Your task to perform on an android device: toggle wifi Image 0: 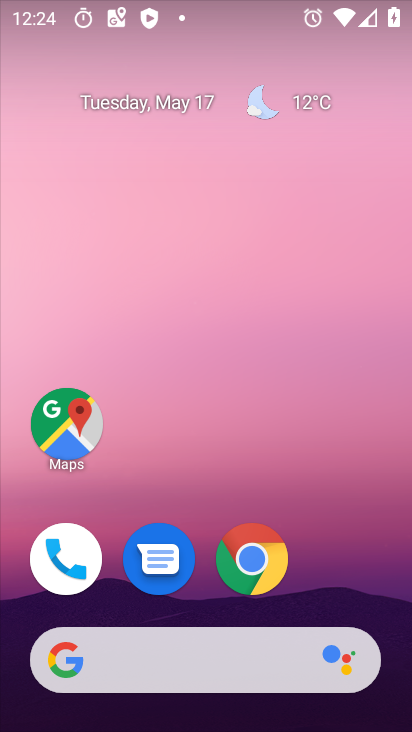
Step 0: drag from (347, 571) to (306, 133)
Your task to perform on an android device: toggle wifi Image 1: 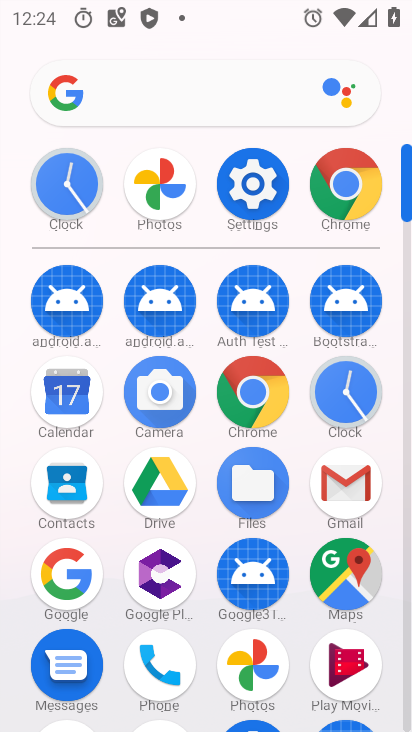
Step 1: click (245, 209)
Your task to perform on an android device: toggle wifi Image 2: 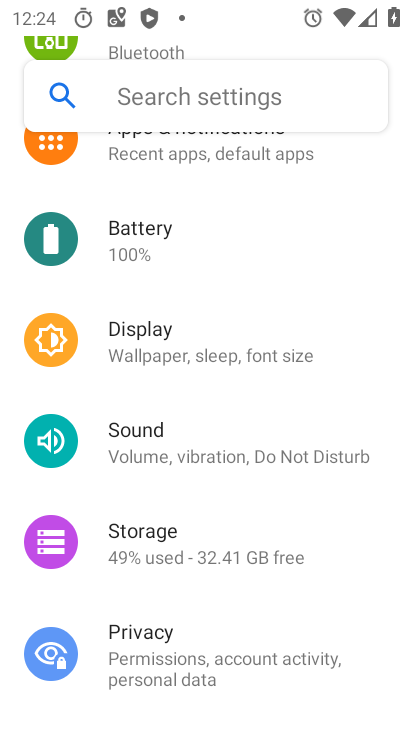
Step 2: drag from (230, 197) to (225, 696)
Your task to perform on an android device: toggle wifi Image 3: 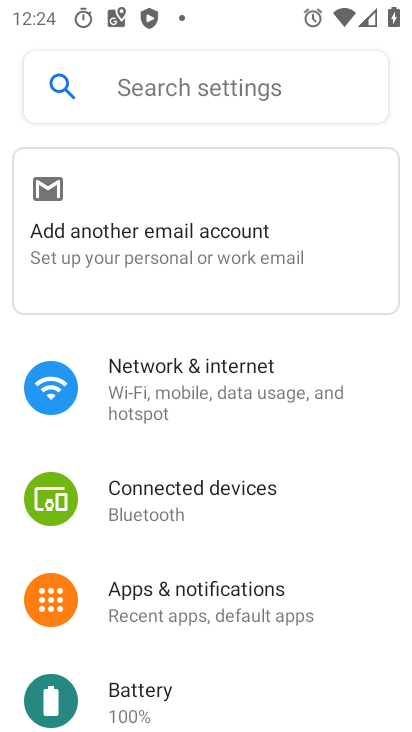
Step 3: click (189, 373)
Your task to perform on an android device: toggle wifi Image 4: 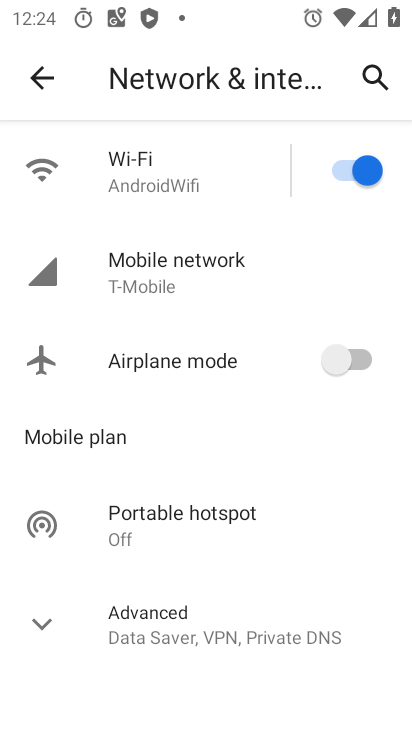
Step 4: click (375, 163)
Your task to perform on an android device: toggle wifi Image 5: 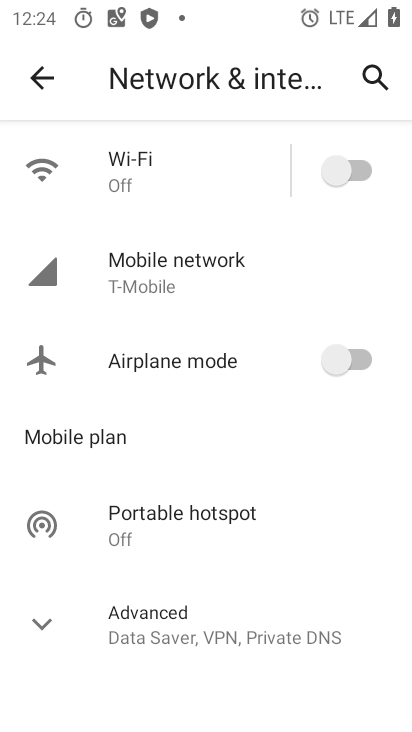
Step 5: task complete